Your task to perform on an android device: turn off location history Image 0: 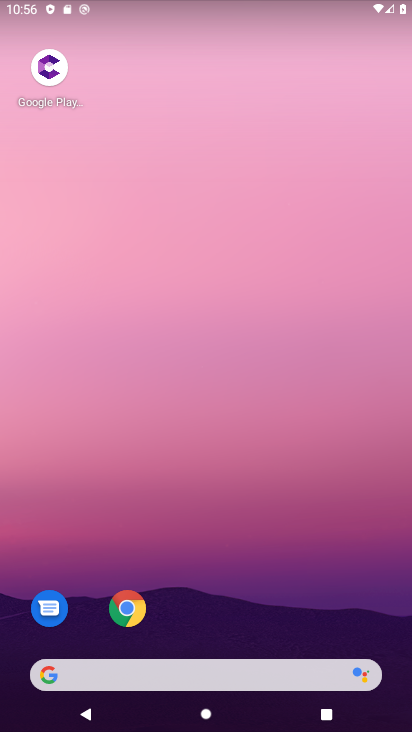
Step 0: drag from (292, 665) to (364, 95)
Your task to perform on an android device: turn off location history Image 1: 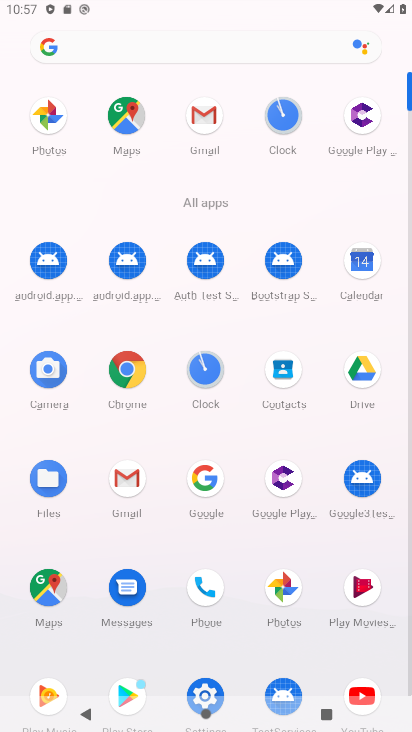
Step 1: click (205, 692)
Your task to perform on an android device: turn off location history Image 2: 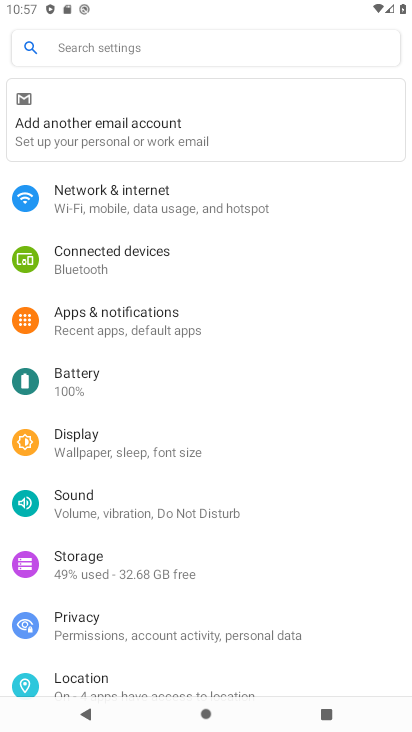
Step 2: click (135, 678)
Your task to perform on an android device: turn off location history Image 3: 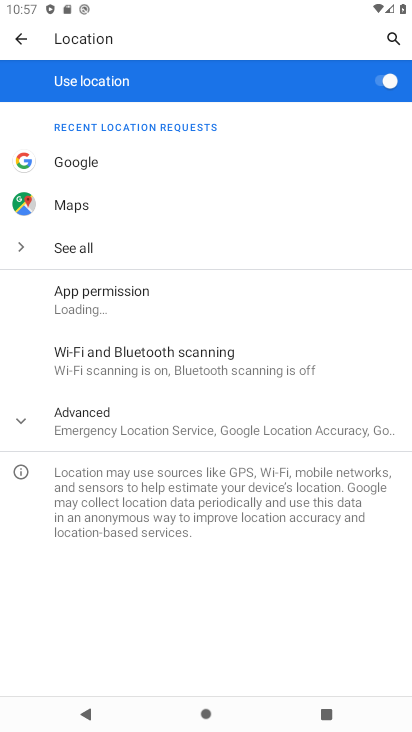
Step 3: click (234, 412)
Your task to perform on an android device: turn off location history Image 4: 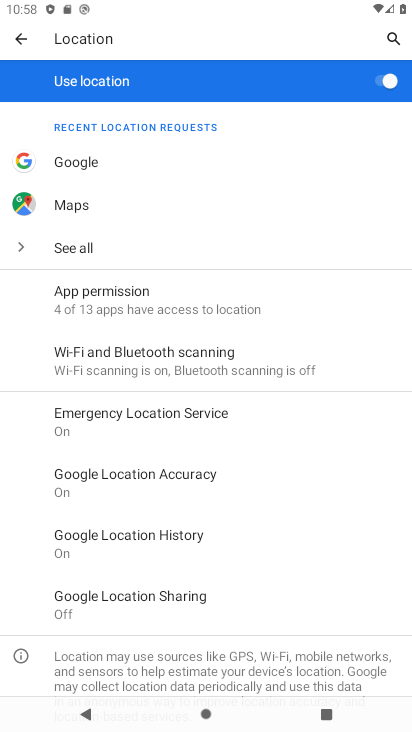
Step 4: click (178, 542)
Your task to perform on an android device: turn off location history Image 5: 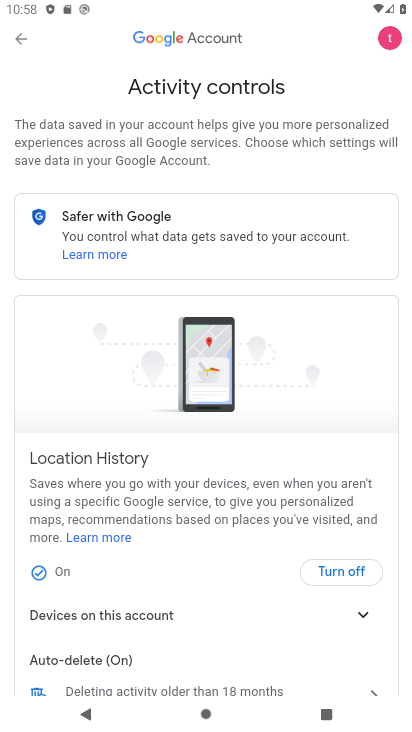
Step 5: click (345, 572)
Your task to perform on an android device: turn off location history Image 6: 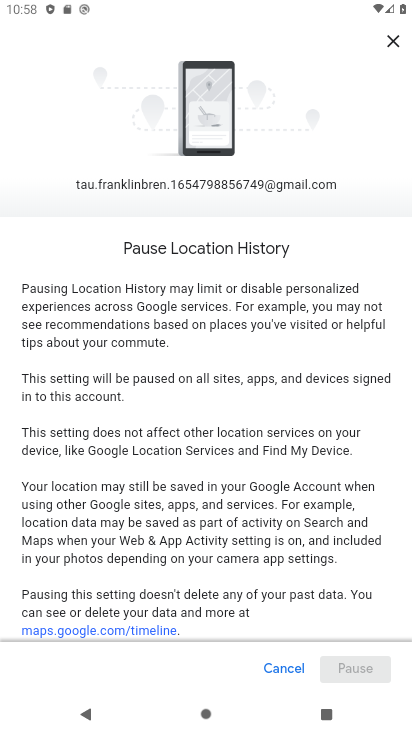
Step 6: drag from (317, 563) to (387, 137)
Your task to perform on an android device: turn off location history Image 7: 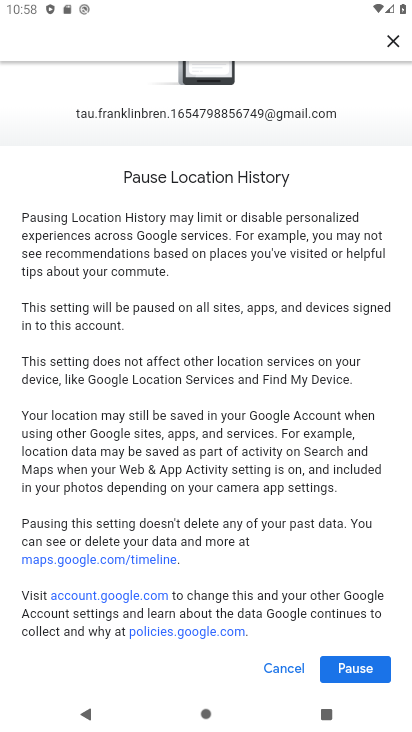
Step 7: click (360, 498)
Your task to perform on an android device: turn off location history Image 8: 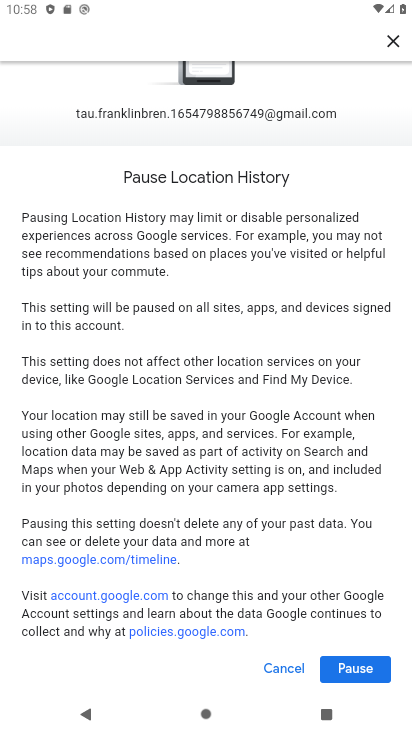
Step 8: click (331, 666)
Your task to perform on an android device: turn off location history Image 9: 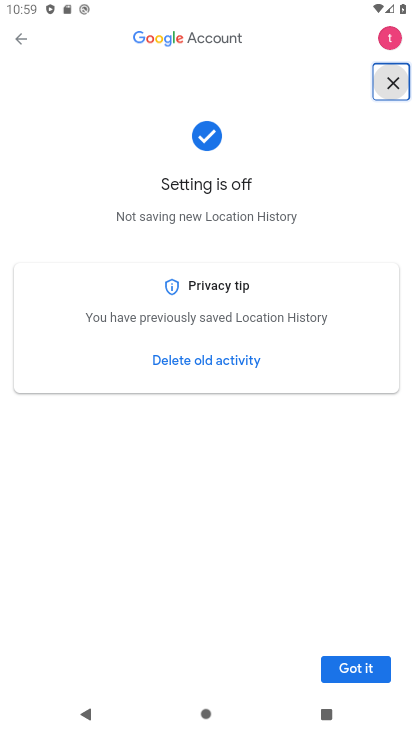
Step 9: task complete